Your task to perform on an android device: Search for usb-c to usb-b on ebay, select the first entry, add it to the cart, then select checkout. Image 0: 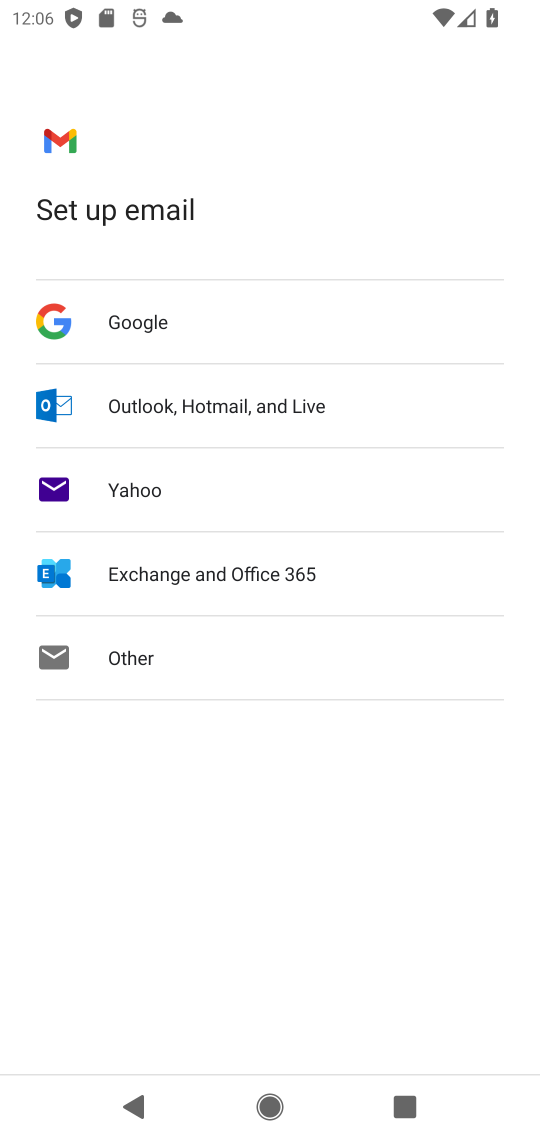
Step 0: press home button
Your task to perform on an android device: Search for usb-c to usb-b on ebay, select the first entry, add it to the cart, then select checkout. Image 1: 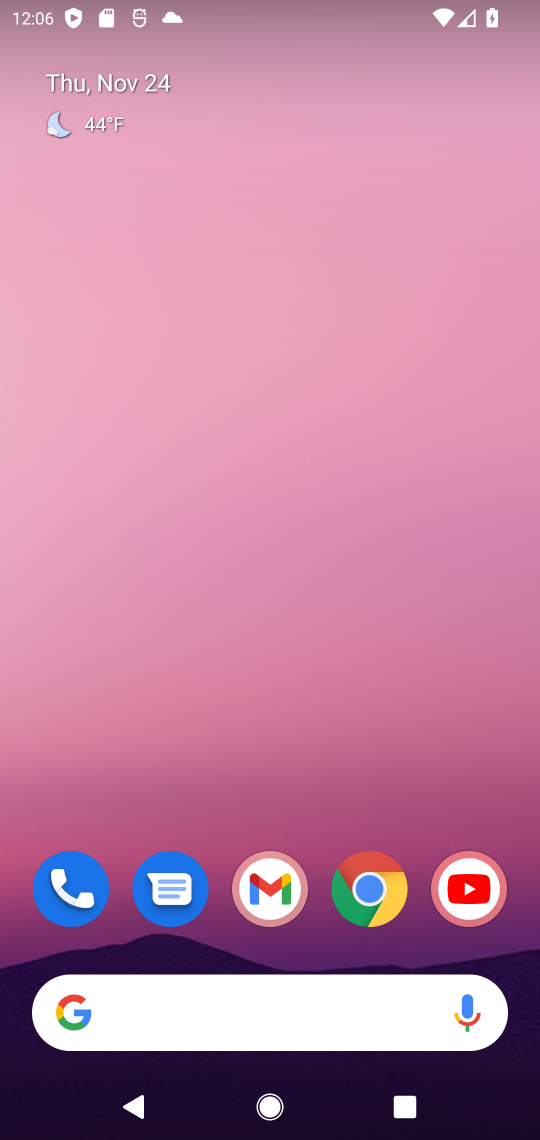
Step 1: click (367, 888)
Your task to perform on an android device: Search for usb-c to usb-b on ebay, select the first entry, add it to the cart, then select checkout. Image 2: 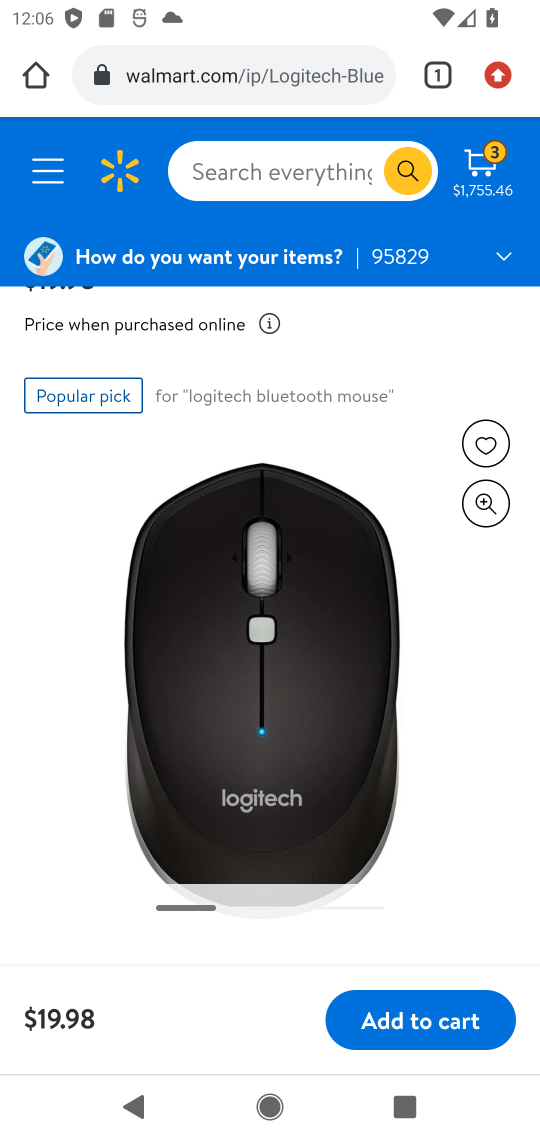
Step 2: click (237, 74)
Your task to perform on an android device: Search for usb-c to usb-b on ebay, select the first entry, add it to the cart, then select checkout. Image 3: 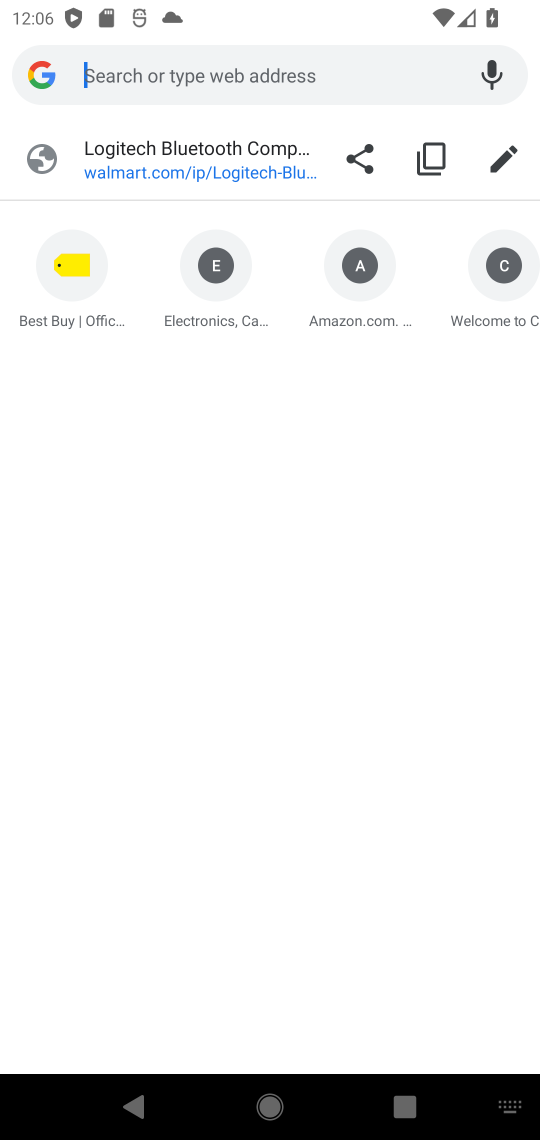
Step 3: type "ebay.com"
Your task to perform on an android device: Search for usb-c to usb-b on ebay, select the first entry, add it to the cart, then select checkout. Image 4: 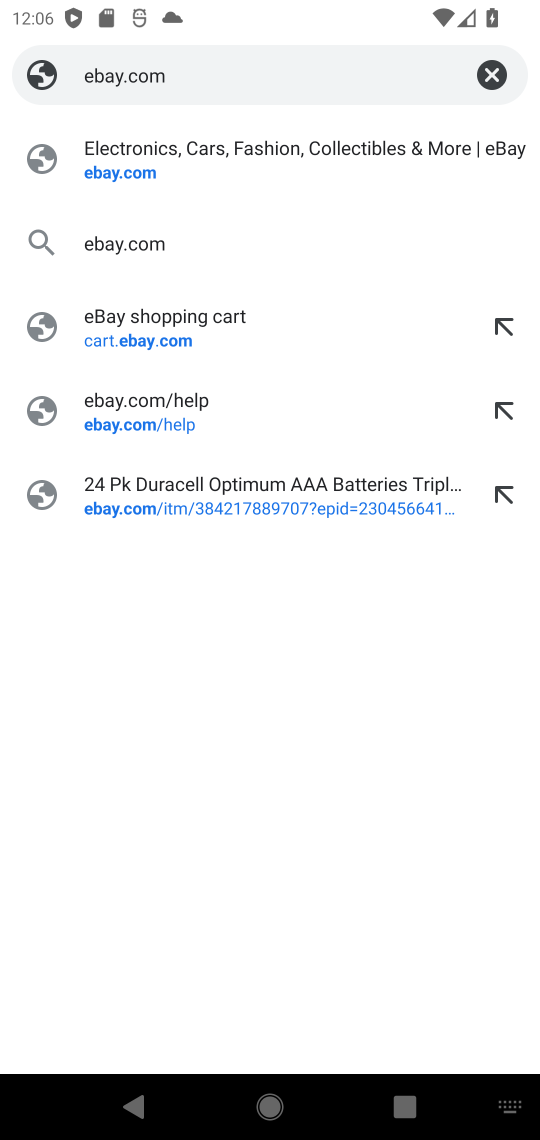
Step 4: click (112, 166)
Your task to perform on an android device: Search for usb-c to usb-b on ebay, select the first entry, add it to the cart, then select checkout. Image 5: 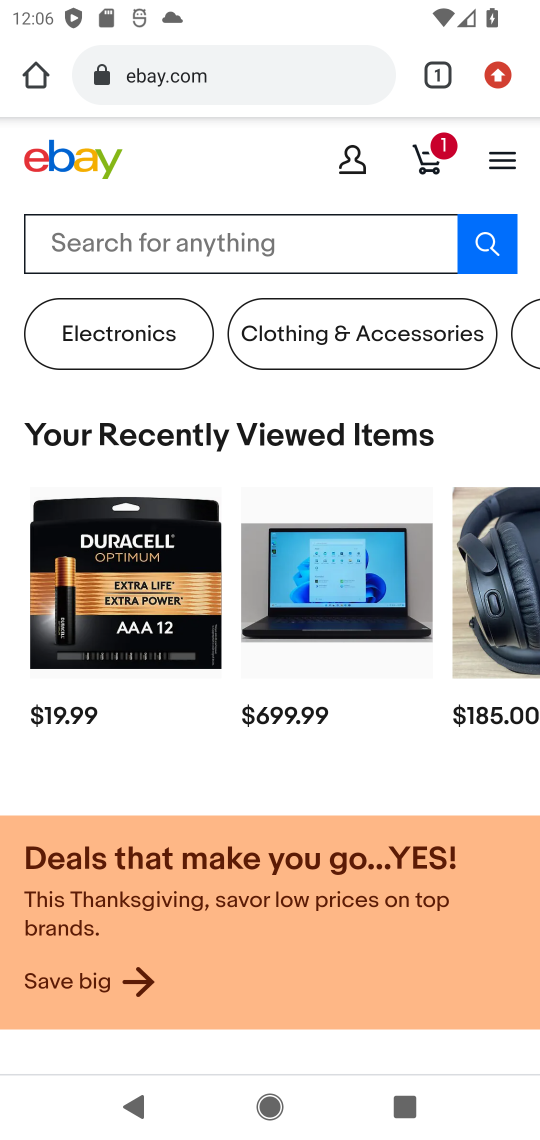
Step 5: click (96, 248)
Your task to perform on an android device: Search for usb-c to usb-b on ebay, select the first entry, add it to the cart, then select checkout. Image 6: 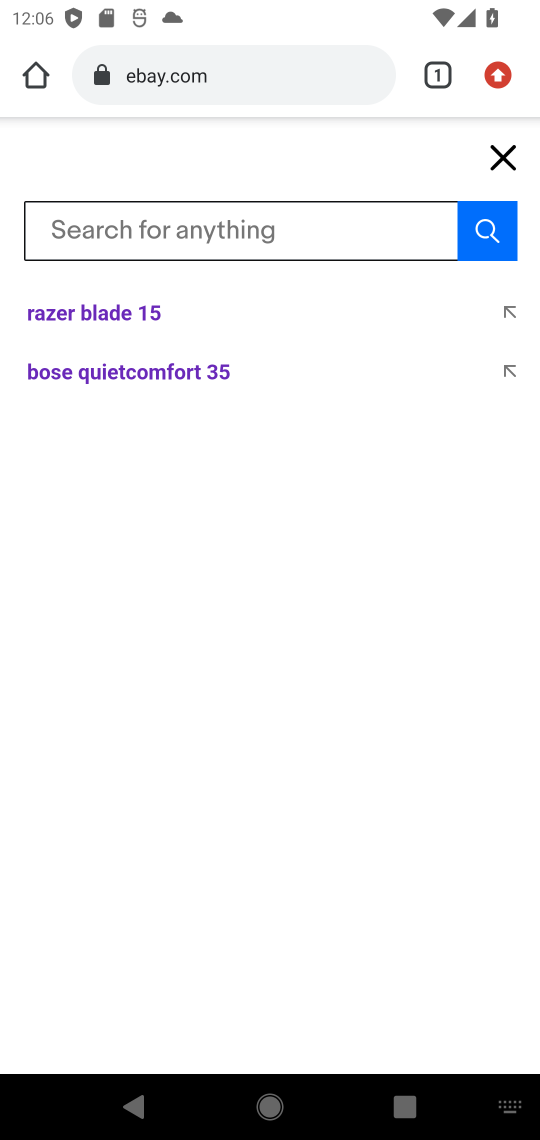
Step 6: type "usb-c to usb-b"
Your task to perform on an android device: Search for usb-c to usb-b on ebay, select the first entry, add it to the cart, then select checkout. Image 7: 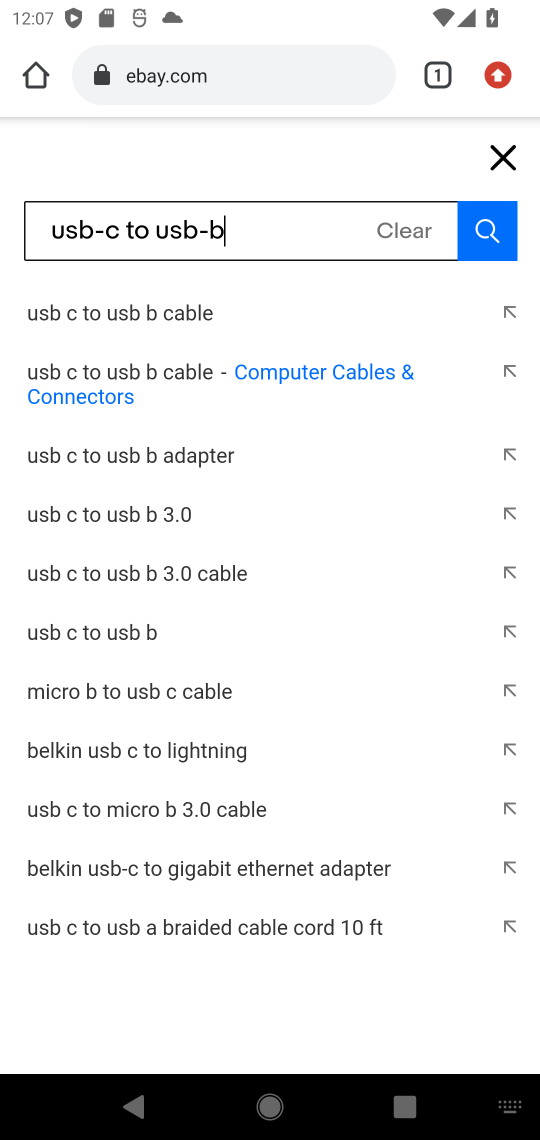
Step 7: click (119, 308)
Your task to perform on an android device: Search for usb-c to usb-b on ebay, select the first entry, add it to the cart, then select checkout. Image 8: 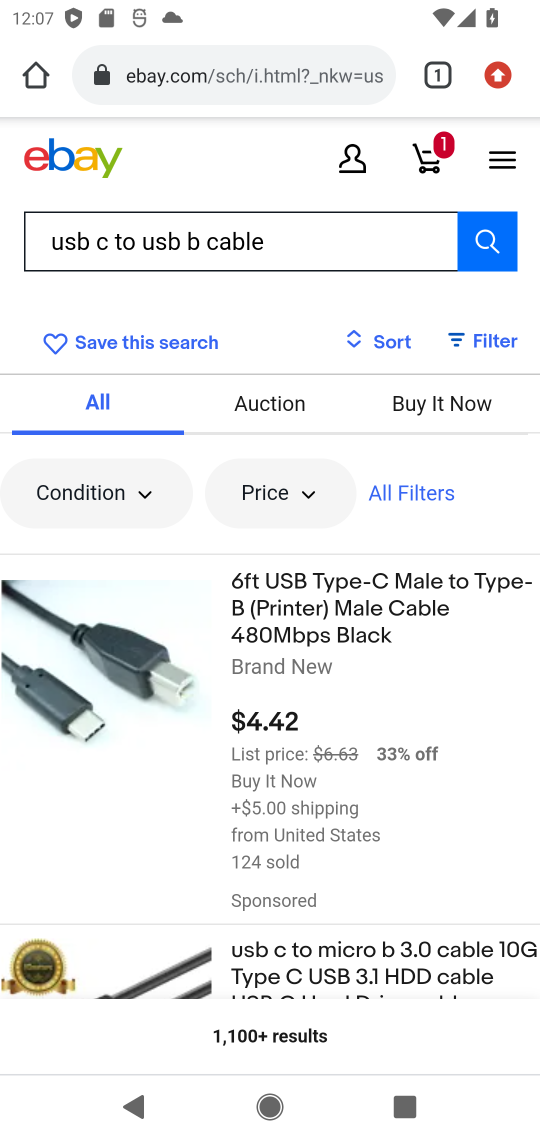
Step 8: click (92, 716)
Your task to perform on an android device: Search for usb-c to usb-b on ebay, select the first entry, add it to the cart, then select checkout. Image 9: 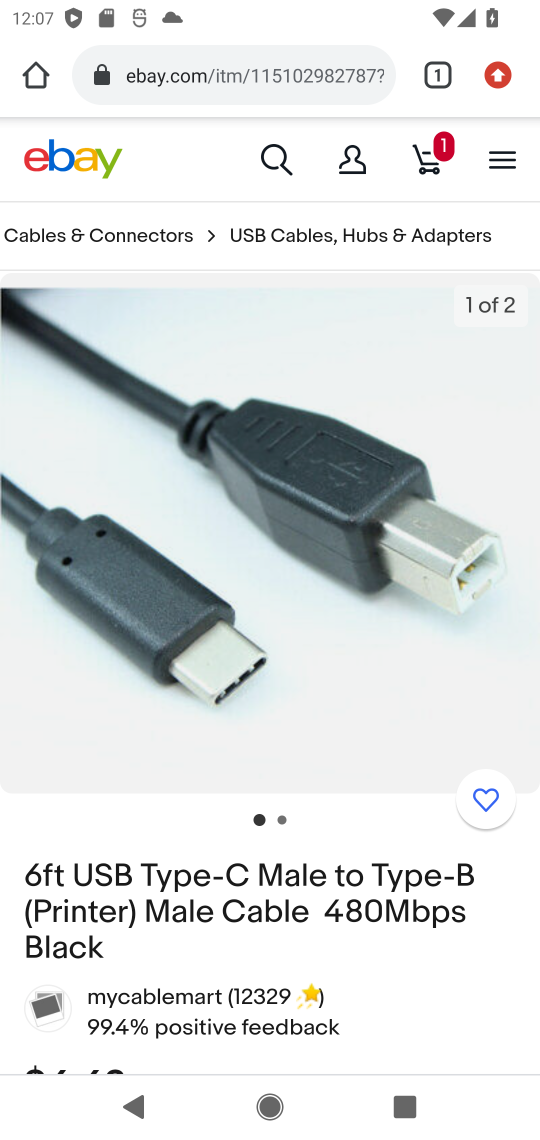
Step 9: drag from (231, 814) to (225, 432)
Your task to perform on an android device: Search for usb-c to usb-b on ebay, select the first entry, add it to the cart, then select checkout. Image 10: 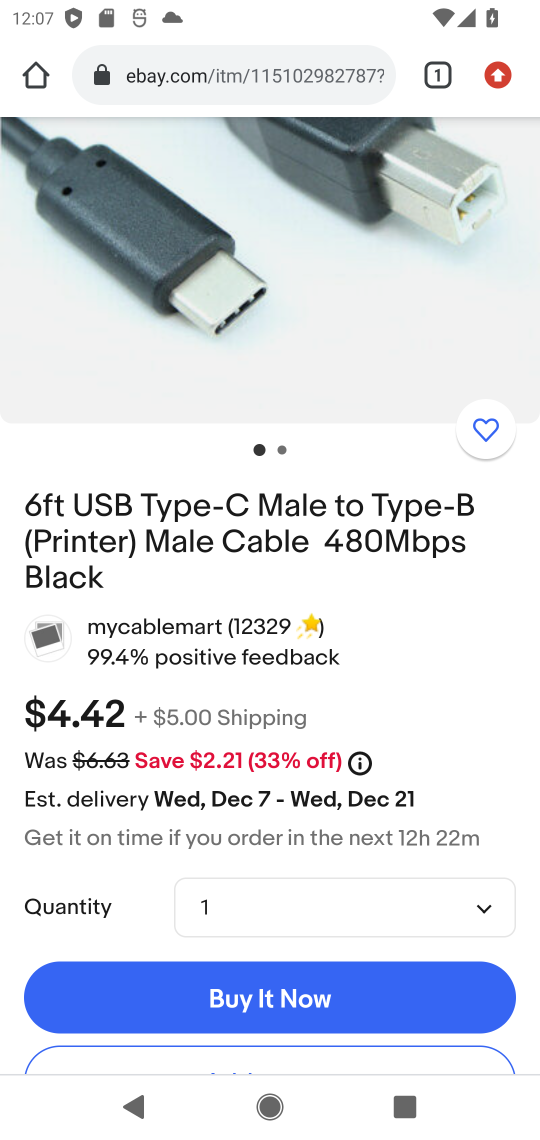
Step 10: drag from (266, 866) to (240, 661)
Your task to perform on an android device: Search for usb-c to usb-b on ebay, select the first entry, add it to the cart, then select checkout. Image 11: 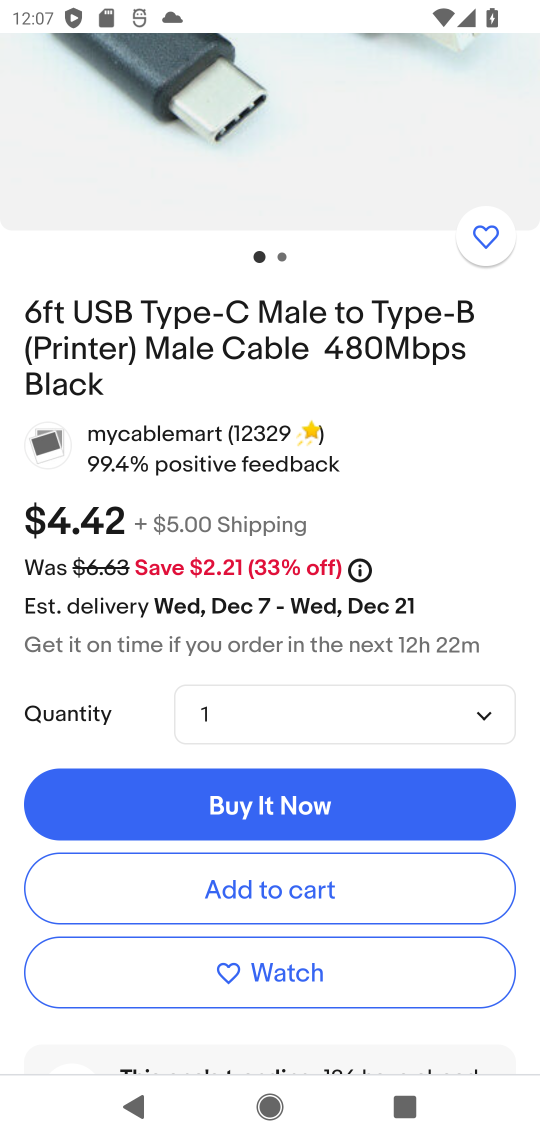
Step 11: click (248, 884)
Your task to perform on an android device: Search for usb-c to usb-b on ebay, select the first entry, add it to the cart, then select checkout. Image 12: 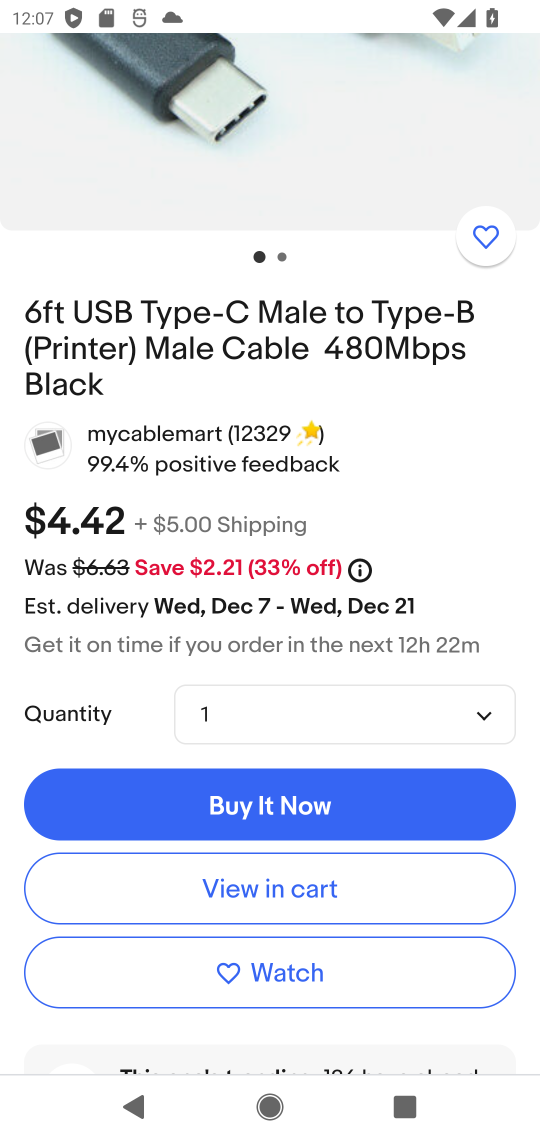
Step 12: click (248, 884)
Your task to perform on an android device: Search for usb-c to usb-b on ebay, select the first entry, add it to the cart, then select checkout. Image 13: 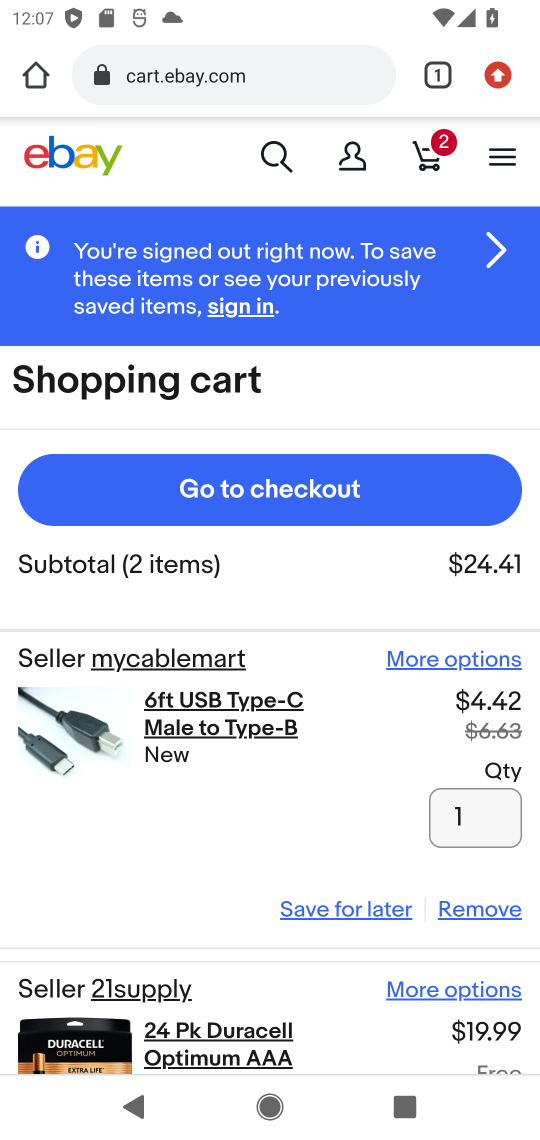
Step 13: click (240, 487)
Your task to perform on an android device: Search for usb-c to usb-b on ebay, select the first entry, add it to the cart, then select checkout. Image 14: 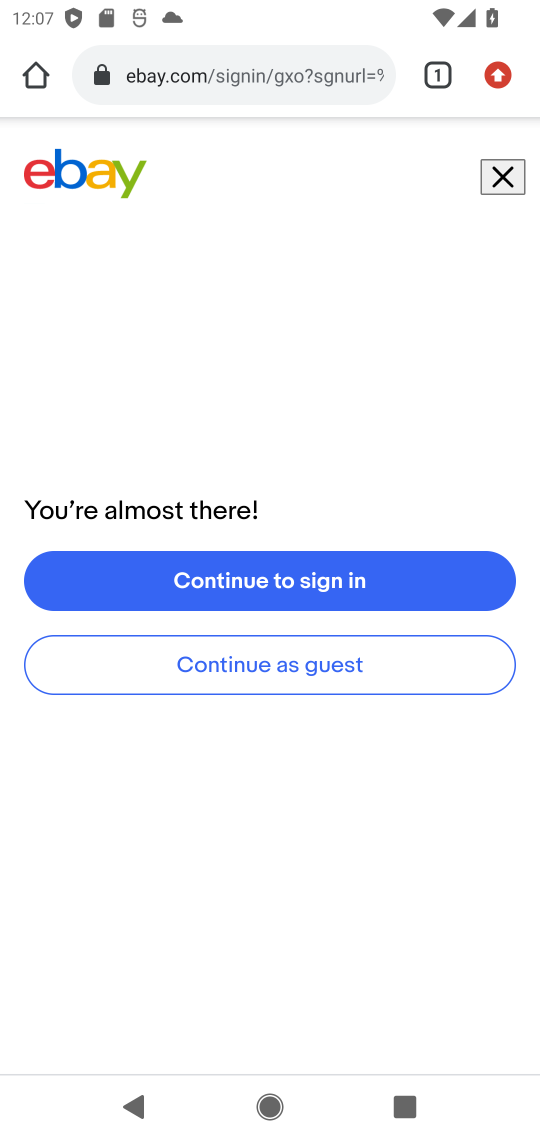
Step 14: task complete